Your task to perform on an android device: Go to accessibility settings Image 0: 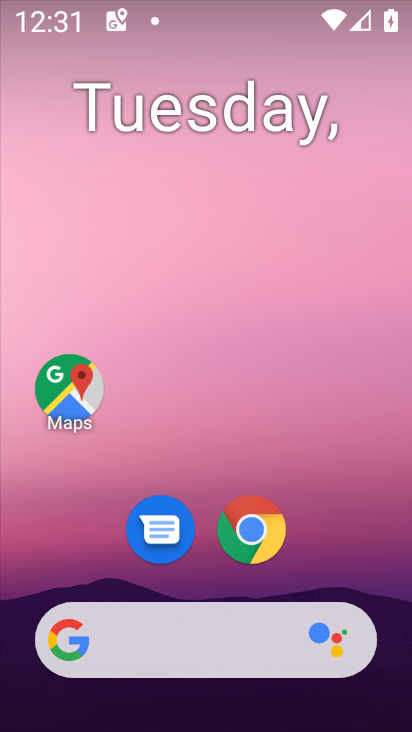
Step 0: drag from (203, 601) to (273, 64)
Your task to perform on an android device: Go to accessibility settings Image 1: 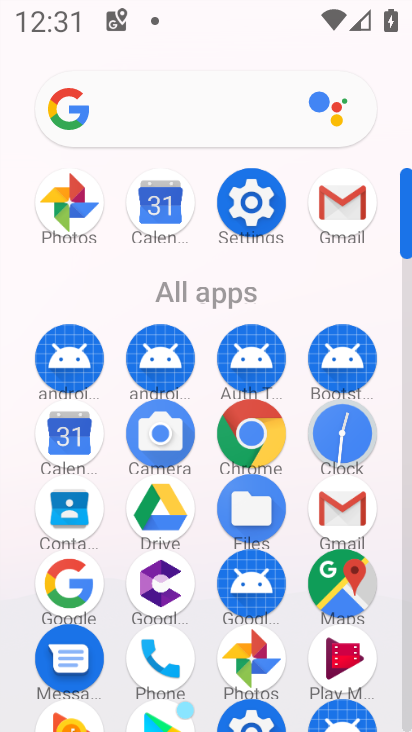
Step 1: click (253, 195)
Your task to perform on an android device: Go to accessibility settings Image 2: 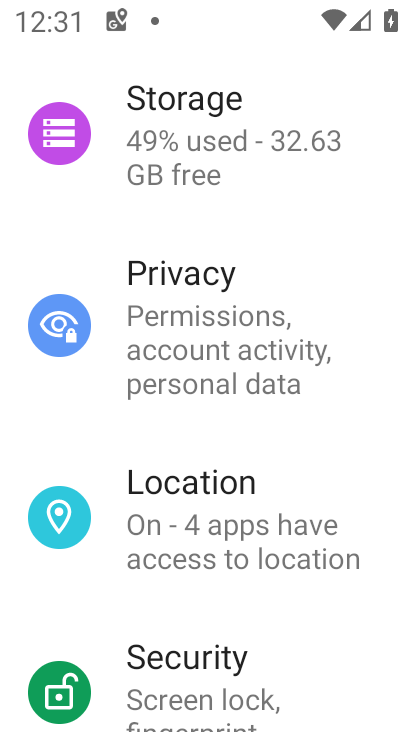
Step 2: drag from (263, 197) to (212, 677)
Your task to perform on an android device: Go to accessibility settings Image 3: 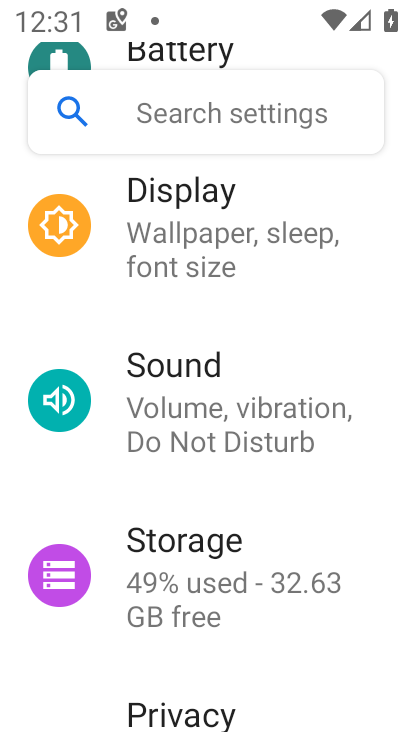
Step 3: click (171, 121)
Your task to perform on an android device: Go to accessibility settings Image 4: 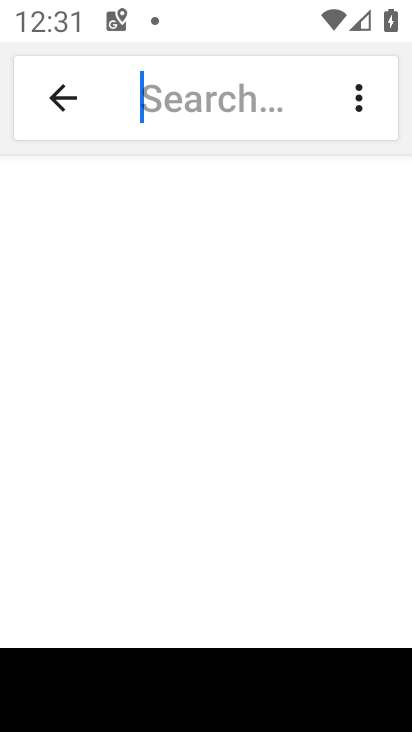
Step 4: click (51, 99)
Your task to perform on an android device: Go to accessibility settings Image 5: 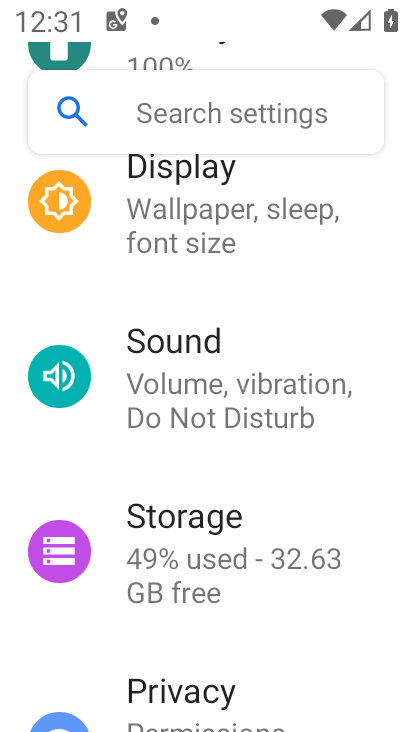
Step 5: drag from (200, 640) to (275, 81)
Your task to perform on an android device: Go to accessibility settings Image 6: 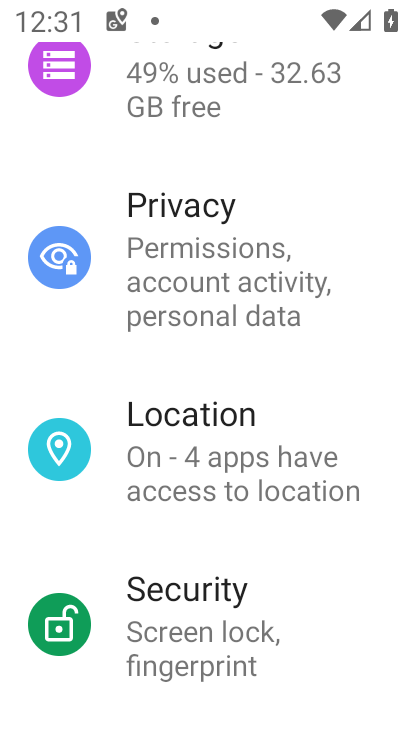
Step 6: drag from (252, 667) to (326, 82)
Your task to perform on an android device: Go to accessibility settings Image 7: 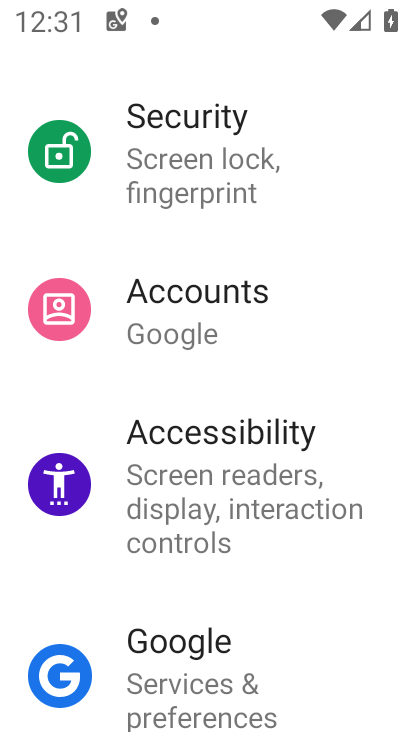
Step 7: click (203, 479)
Your task to perform on an android device: Go to accessibility settings Image 8: 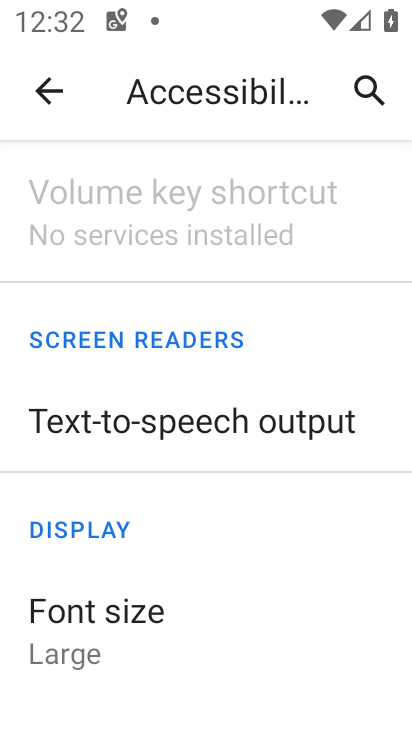
Step 8: task complete